Your task to perform on an android device: Open Android settings Image 0: 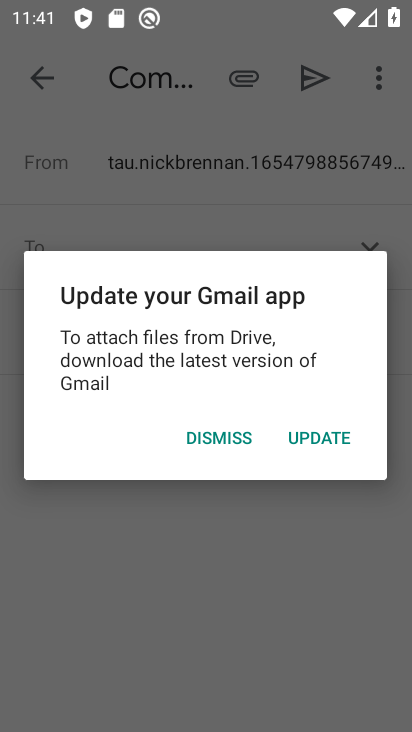
Step 0: press home button
Your task to perform on an android device: Open Android settings Image 1: 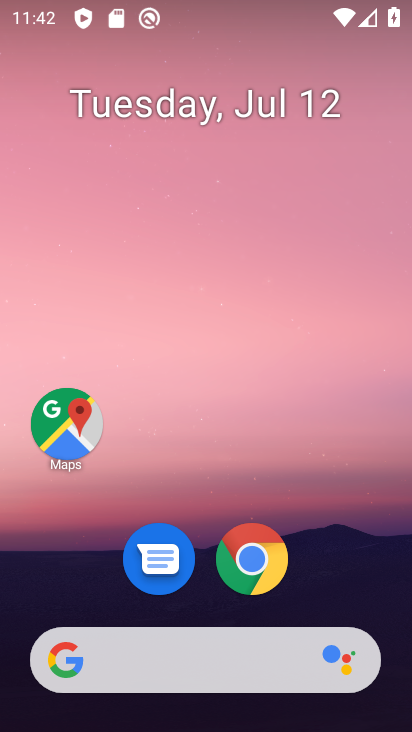
Step 1: drag from (243, 644) to (265, 95)
Your task to perform on an android device: Open Android settings Image 2: 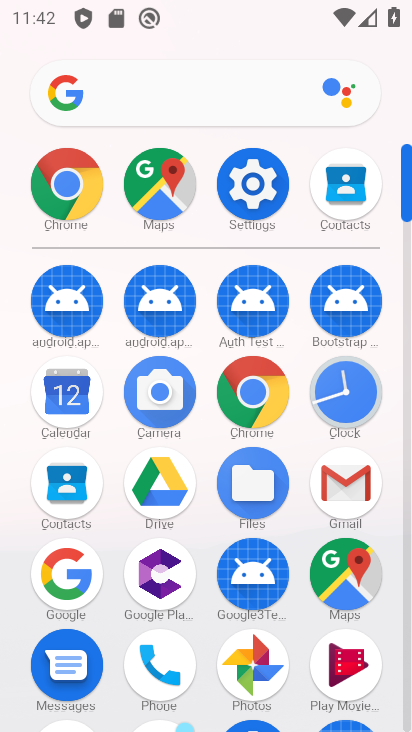
Step 2: click (249, 205)
Your task to perform on an android device: Open Android settings Image 3: 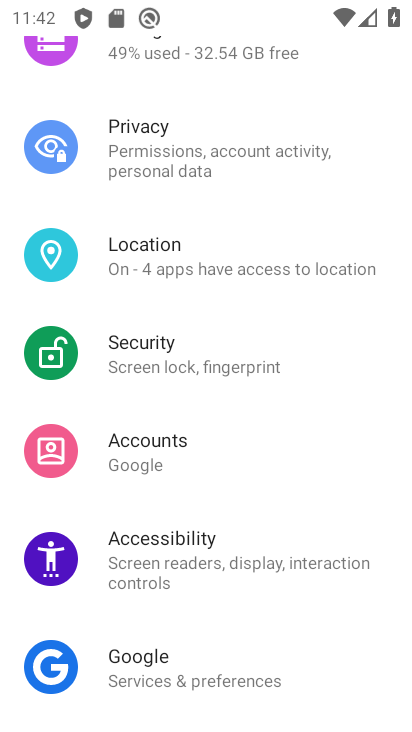
Step 3: drag from (232, 524) to (223, 310)
Your task to perform on an android device: Open Android settings Image 4: 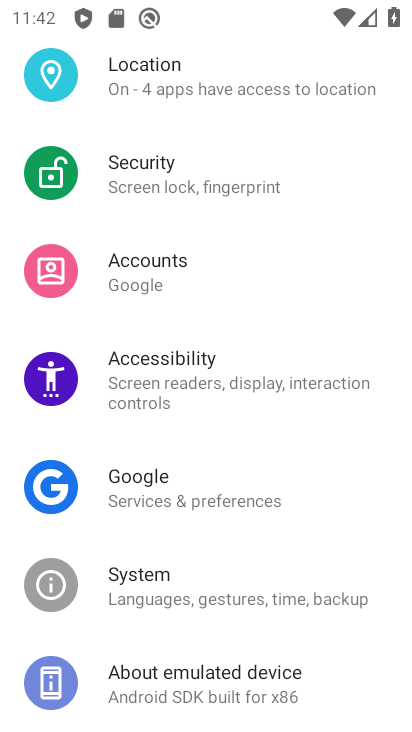
Step 4: drag from (236, 605) to (268, 404)
Your task to perform on an android device: Open Android settings Image 5: 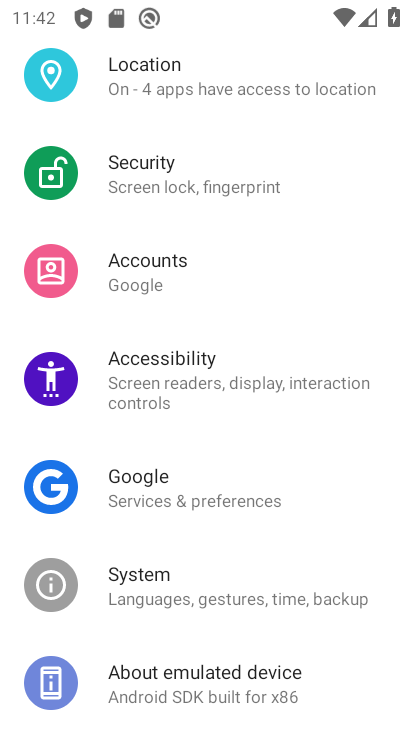
Step 5: drag from (247, 583) to (282, 375)
Your task to perform on an android device: Open Android settings Image 6: 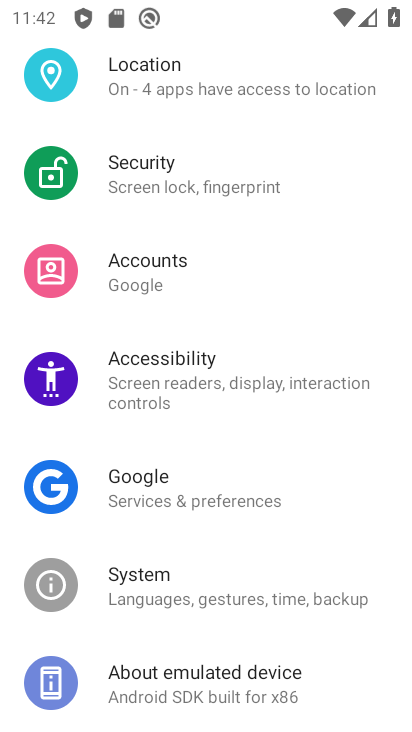
Step 6: drag from (211, 656) to (228, 434)
Your task to perform on an android device: Open Android settings Image 7: 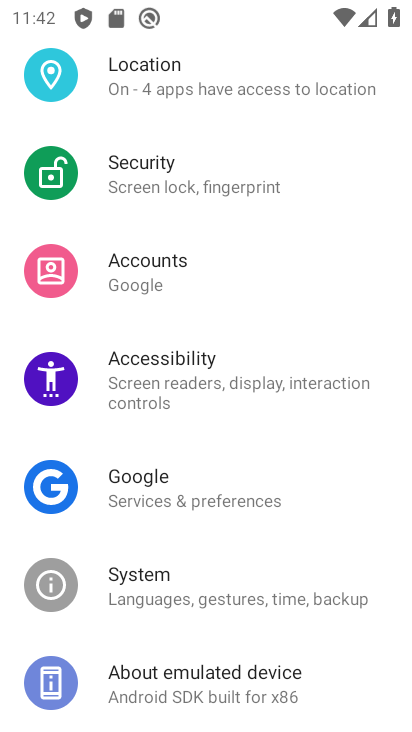
Step 7: click (225, 685)
Your task to perform on an android device: Open Android settings Image 8: 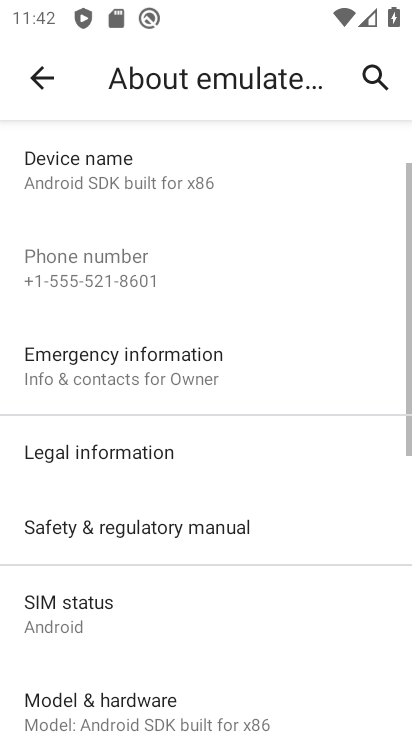
Step 8: drag from (90, 538) to (138, 291)
Your task to perform on an android device: Open Android settings Image 9: 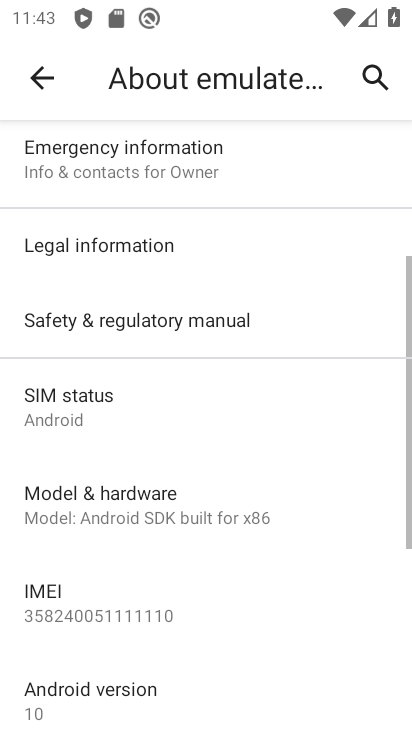
Step 9: drag from (173, 608) to (188, 491)
Your task to perform on an android device: Open Android settings Image 10: 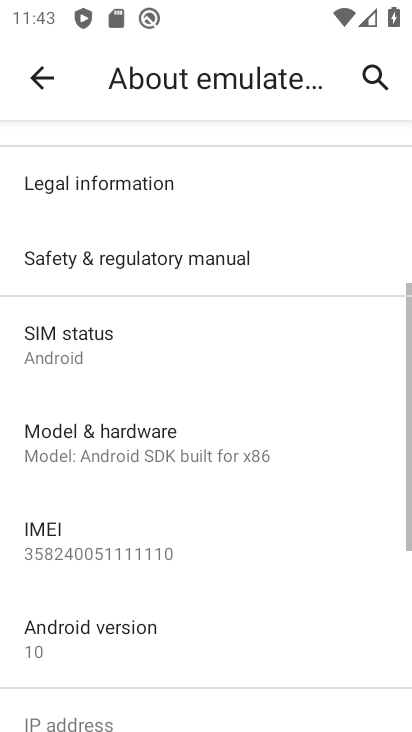
Step 10: click (159, 647)
Your task to perform on an android device: Open Android settings Image 11: 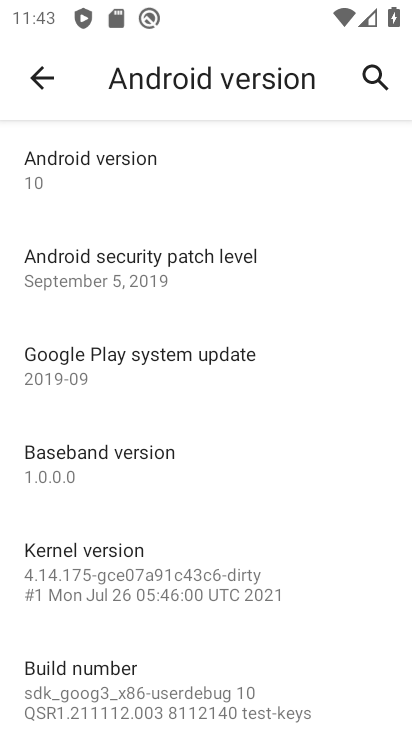
Step 11: task complete